Your task to perform on an android device: manage bookmarks in the chrome app Image 0: 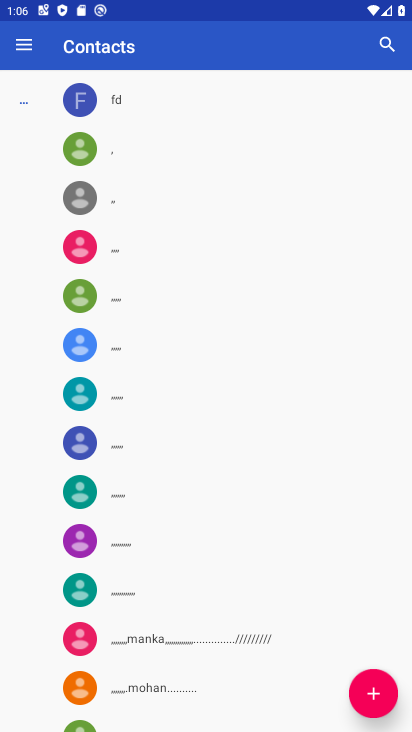
Step 0: press home button
Your task to perform on an android device: manage bookmarks in the chrome app Image 1: 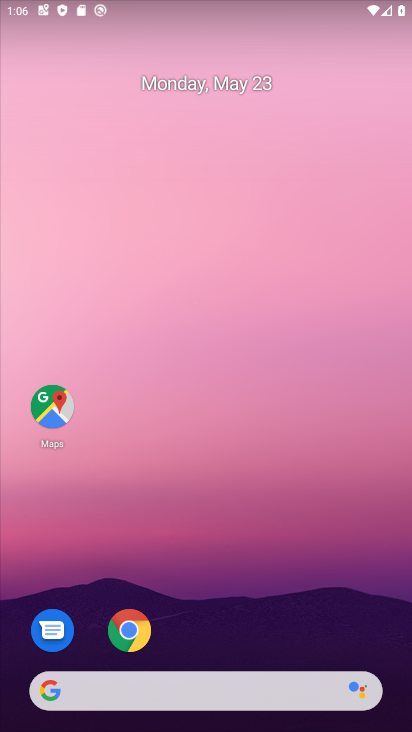
Step 1: drag from (390, 596) to (346, 209)
Your task to perform on an android device: manage bookmarks in the chrome app Image 2: 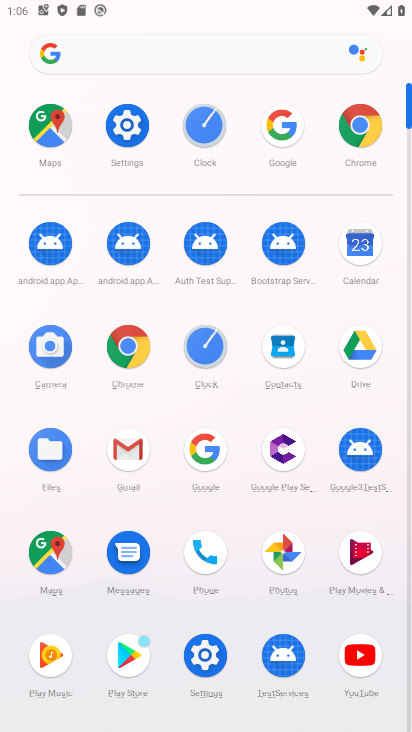
Step 2: click (131, 350)
Your task to perform on an android device: manage bookmarks in the chrome app Image 3: 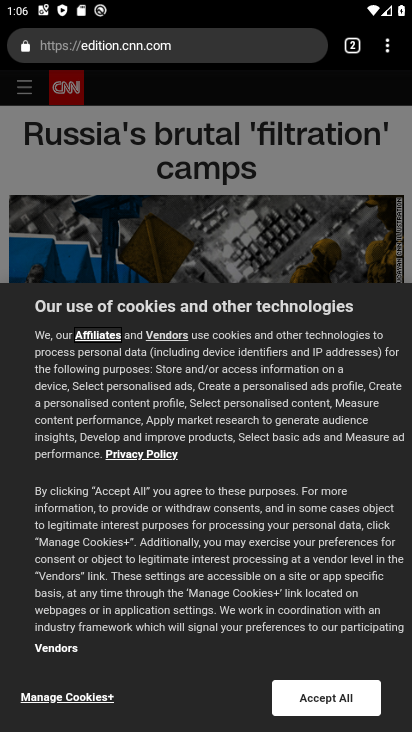
Step 3: drag from (396, 58) to (231, 231)
Your task to perform on an android device: manage bookmarks in the chrome app Image 4: 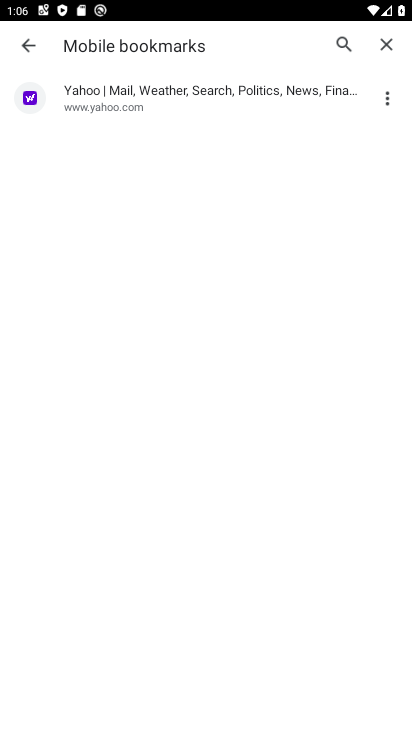
Step 4: click (388, 103)
Your task to perform on an android device: manage bookmarks in the chrome app Image 5: 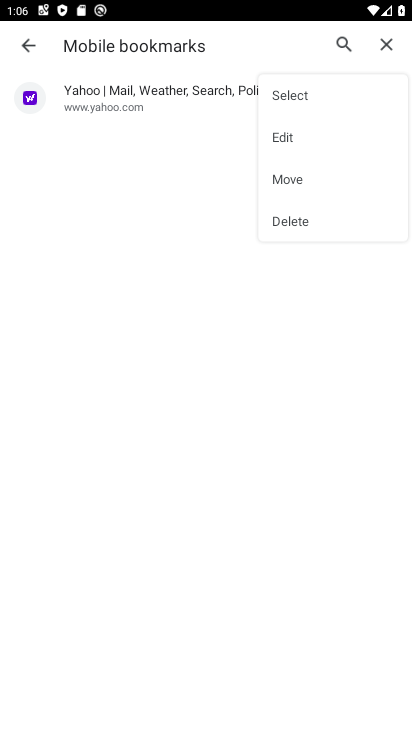
Step 5: click (298, 227)
Your task to perform on an android device: manage bookmarks in the chrome app Image 6: 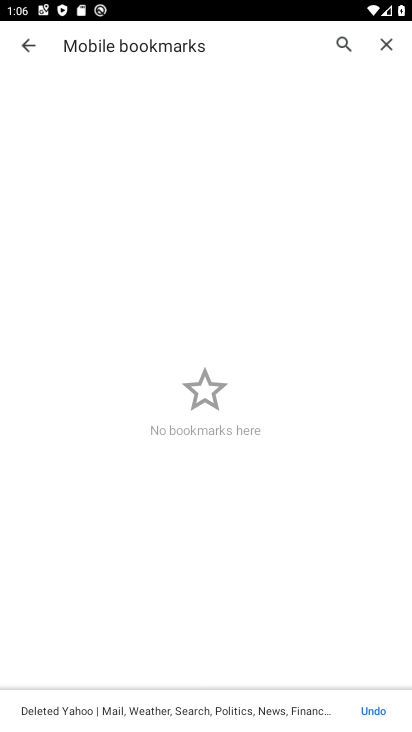
Step 6: task complete